Your task to perform on an android device: Go to network settings Image 0: 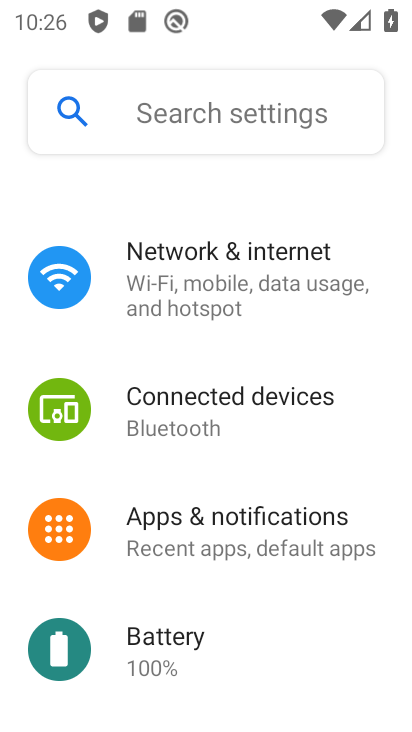
Step 0: press back button
Your task to perform on an android device: Go to network settings Image 1: 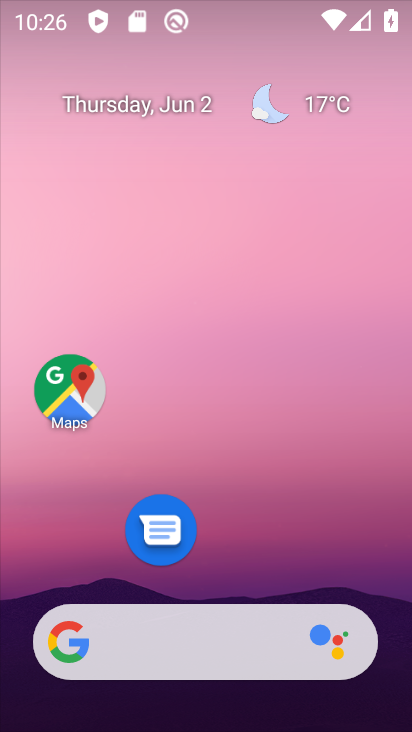
Step 1: drag from (234, 687) to (44, 76)
Your task to perform on an android device: Go to network settings Image 2: 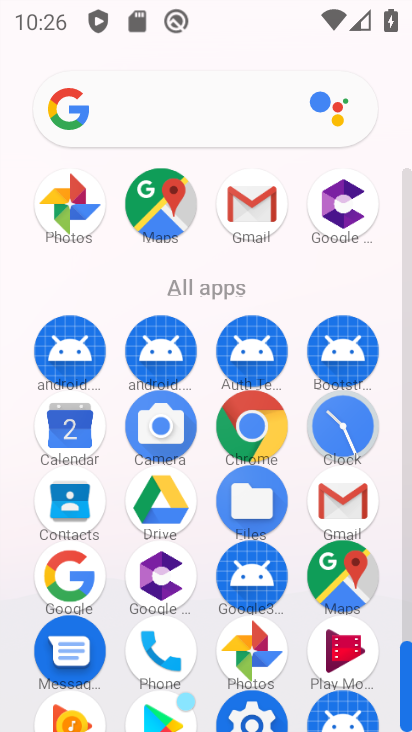
Step 2: click (261, 706)
Your task to perform on an android device: Go to network settings Image 3: 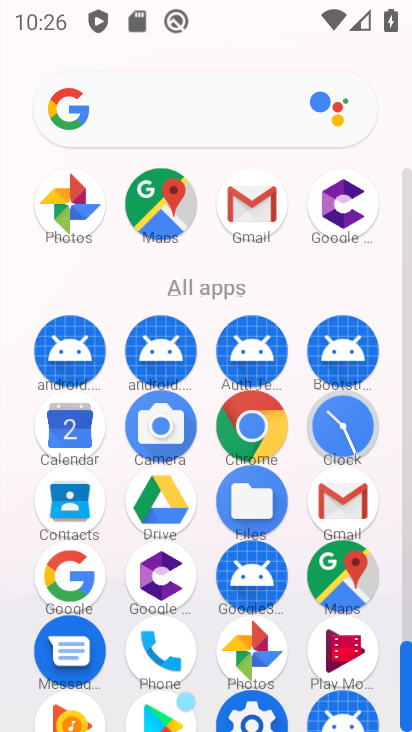
Step 3: click (259, 705)
Your task to perform on an android device: Go to network settings Image 4: 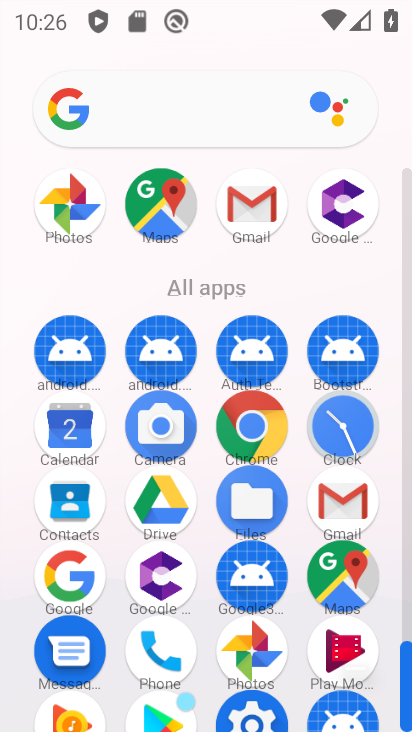
Step 4: click (259, 705)
Your task to perform on an android device: Go to network settings Image 5: 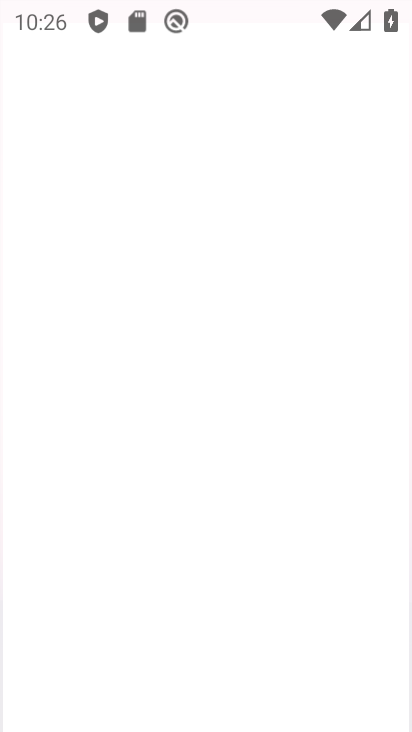
Step 5: click (256, 702)
Your task to perform on an android device: Go to network settings Image 6: 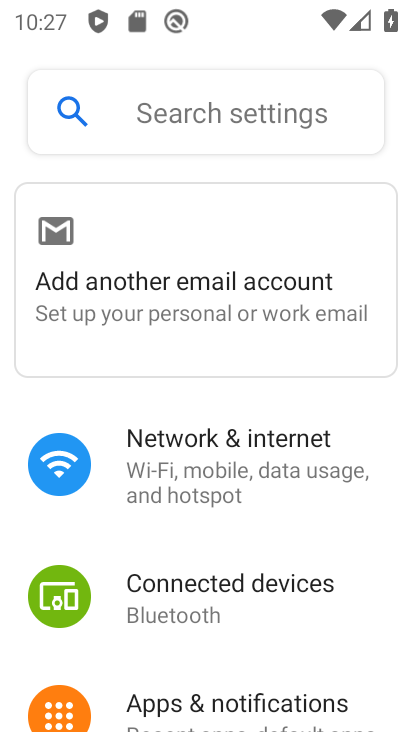
Step 6: click (208, 501)
Your task to perform on an android device: Go to network settings Image 7: 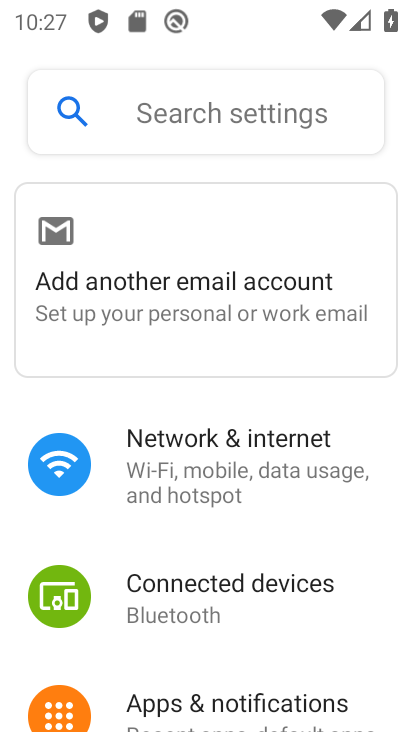
Step 7: click (206, 495)
Your task to perform on an android device: Go to network settings Image 8: 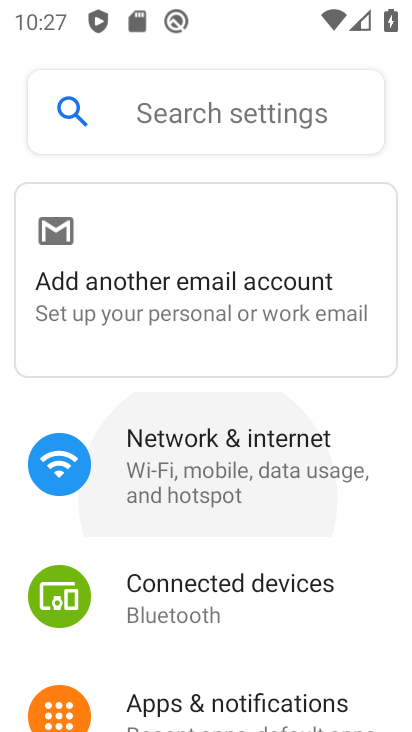
Step 8: click (204, 491)
Your task to perform on an android device: Go to network settings Image 9: 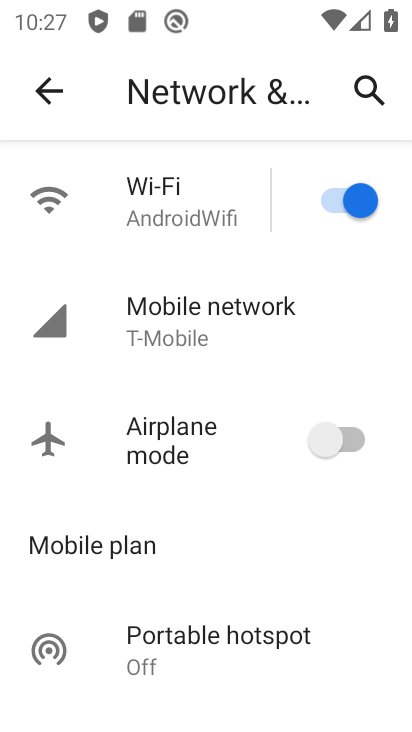
Step 9: drag from (187, 543) to (71, 224)
Your task to perform on an android device: Go to network settings Image 10: 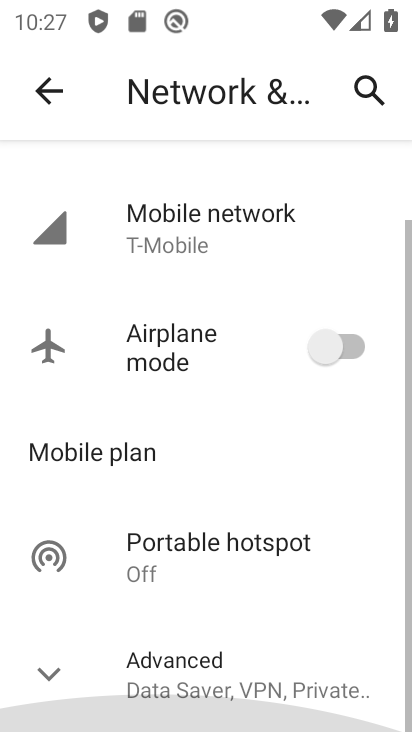
Step 10: drag from (208, 481) to (178, 204)
Your task to perform on an android device: Go to network settings Image 11: 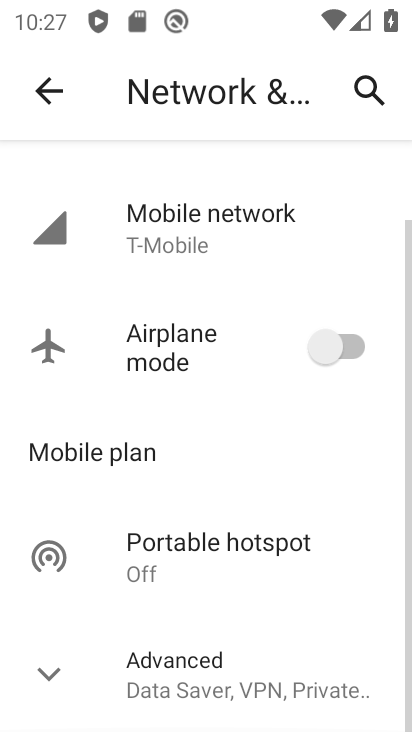
Step 11: click (149, 245)
Your task to perform on an android device: Go to network settings Image 12: 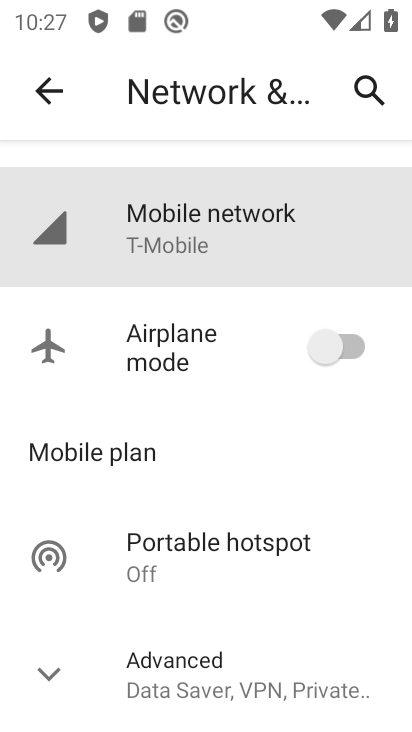
Step 12: drag from (225, 339) to (201, 28)
Your task to perform on an android device: Go to network settings Image 13: 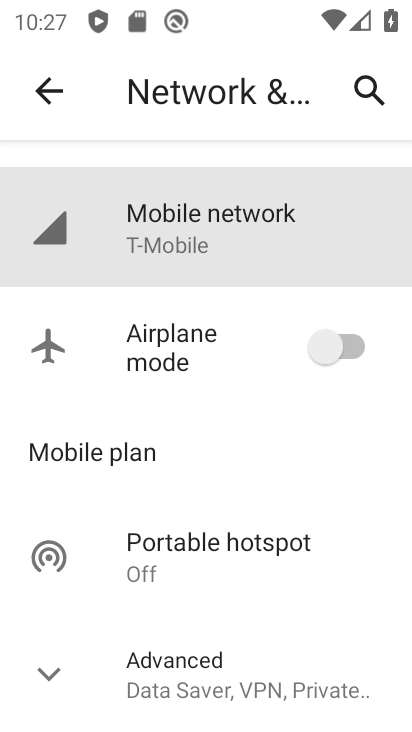
Step 13: drag from (236, 338) to (199, 140)
Your task to perform on an android device: Go to network settings Image 14: 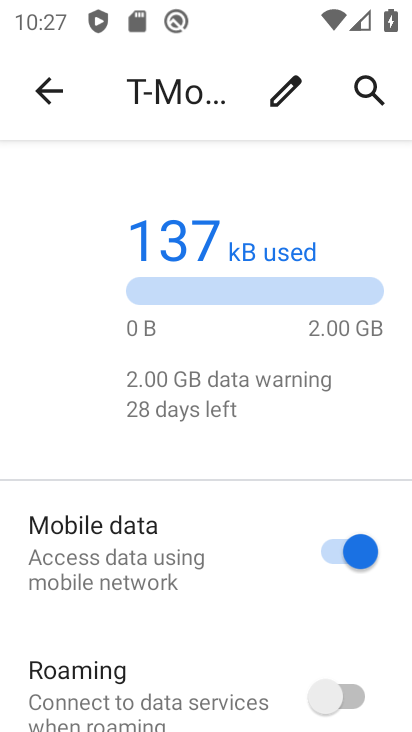
Step 14: click (45, 80)
Your task to perform on an android device: Go to network settings Image 15: 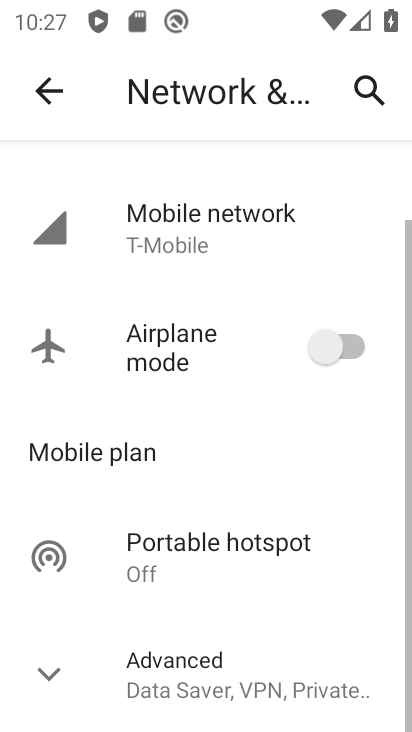
Step 15: click (45, 80)
Your task to perform on an android device: Go to network settings Image 16: 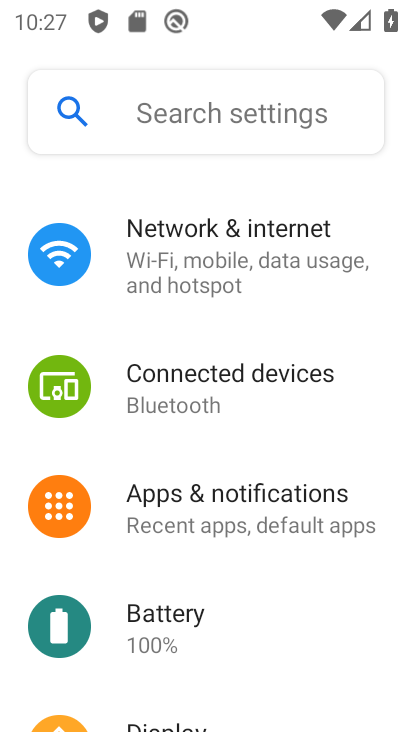
Step 16: drag from (293, 243) to (338, 520)
Your task to perform on an android device: Go to network settings Image 17: 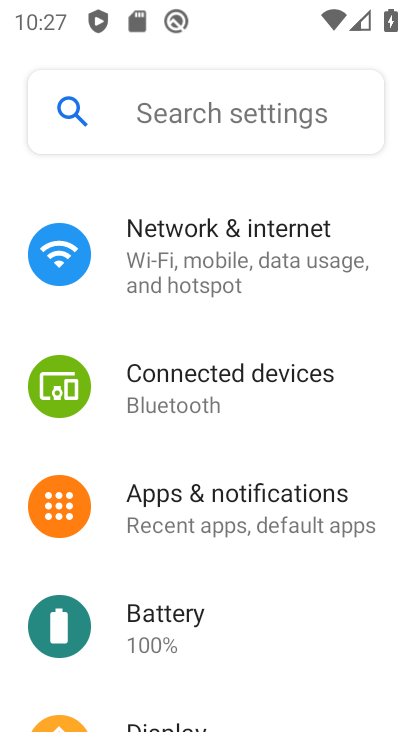
Step 17: drag from (258, 320) to (265, 469)
Your task to perform on an android device: Go to network settings Image 18: 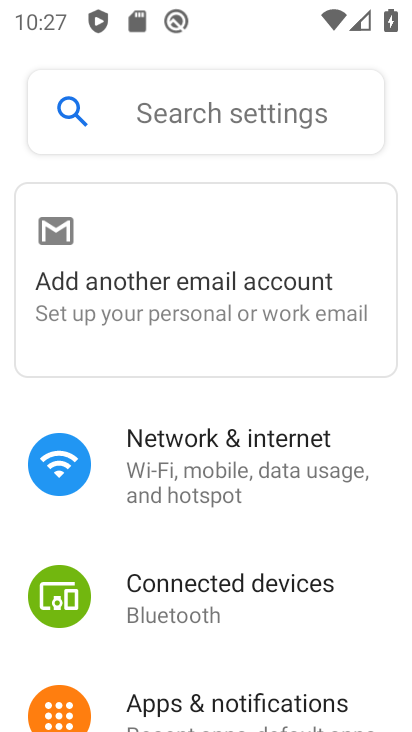
Step 18: click (222, 249)
Your task to perform on an android device: Go to network settings Image 19: 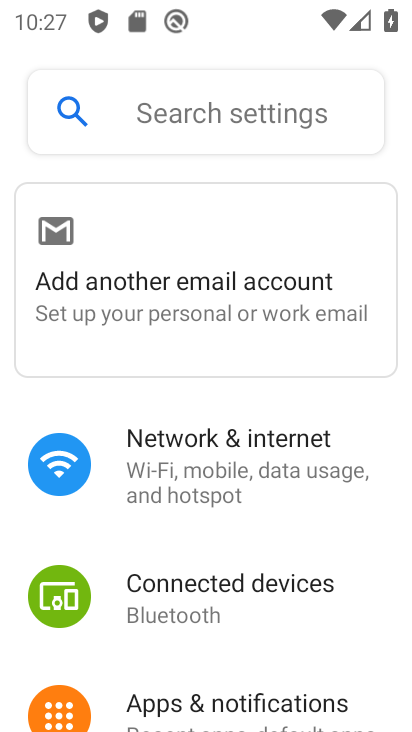
Step 19: click (222, 249)
Your task to perform on an android device: Go to network settings Image 20: 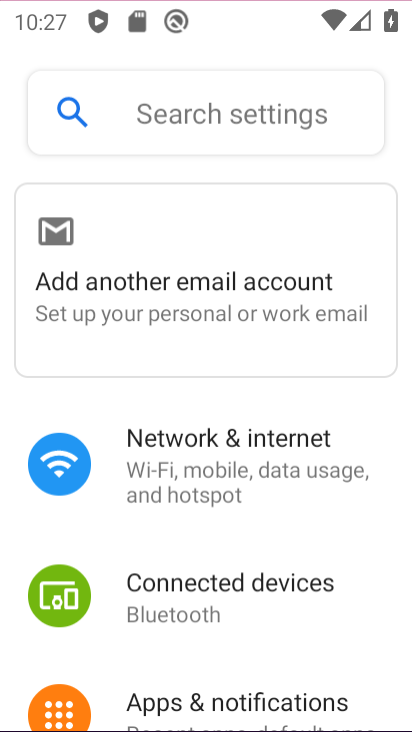
Step 20: click (201, 485)
Your task to perform on an android device: Go to network settings Image 21: 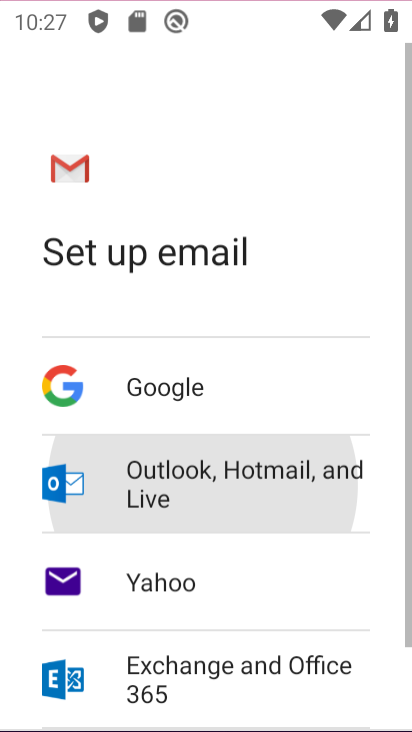
Step 21: click (201, 485)
Your task to perform on an android device: Go to network settings Image 22: 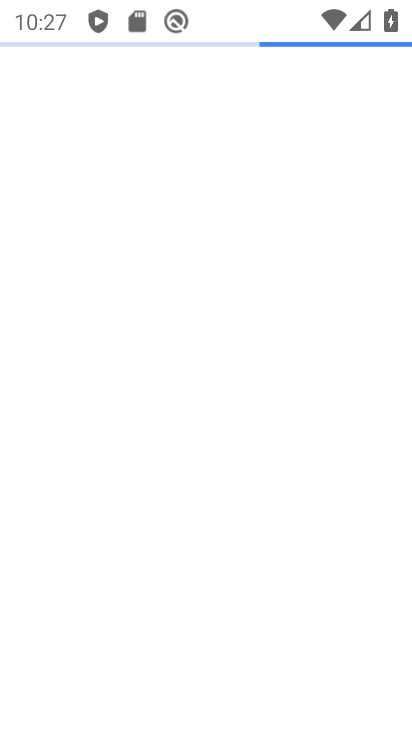
Step 22: task complete